Your task to perform on an android device: clear history in the chrome app Image 0: 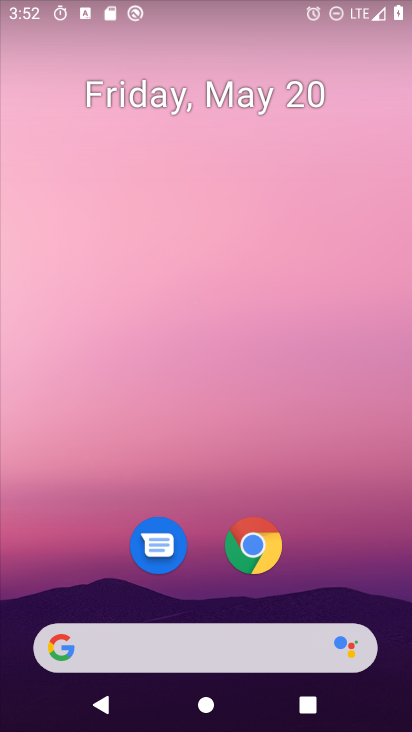
Step 0: drag from (291, 592) to (315, 11)
Your task to perform on an android device: clear history in the chrome app Image 1: 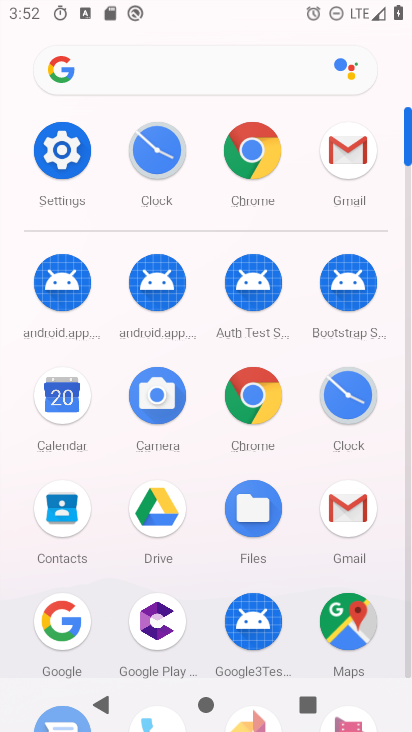
Step 1: click (236, 382)
Your task to perform on an android device: clear history in the chrome app Image 2: 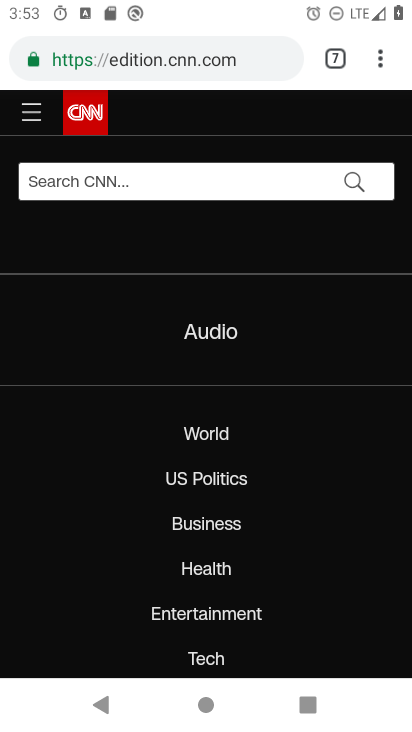
Step 2: drag from (383, 53) to (182, 332)
Your task to perform on an android device: clear history in the chrome app Image 3: 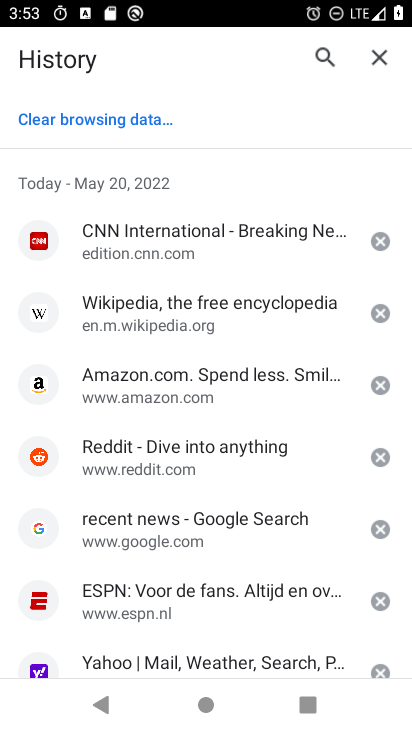
Step 3: click (125, 117)
Your task to perform on an android device: clear history in the chrome app Image 4: 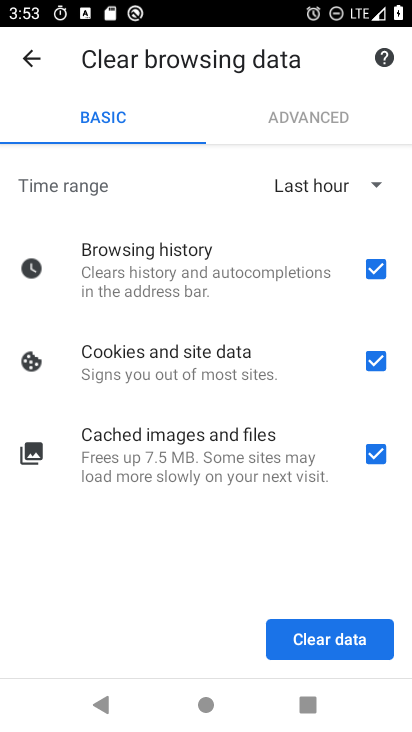
Step 4: click (372, 648)
Your task to perform on an android device: clear history in the chrome app Image 5: 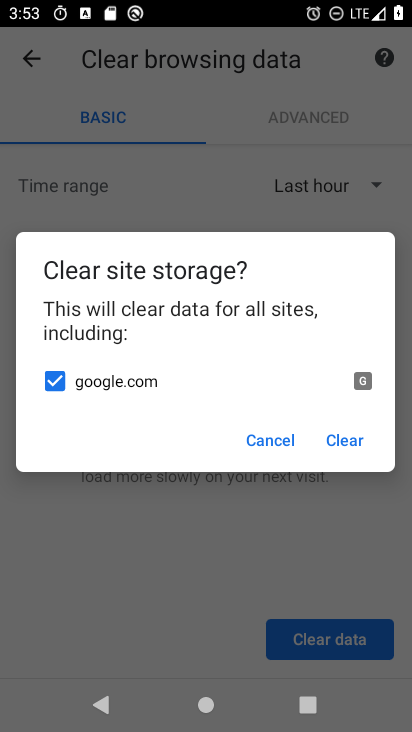
Step 5: click (335, 439)
Your task to perform on an android device: clear history in the chrome app Image 6: 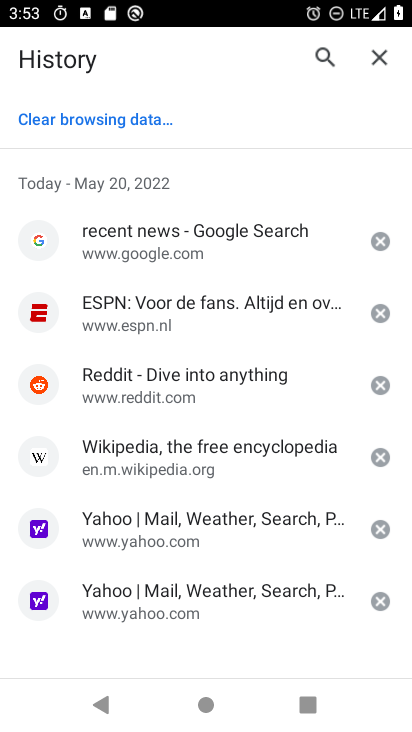
Step 6: click (376, 236)
Your task to perform on an android device: clear history in the chrome app Image 7: 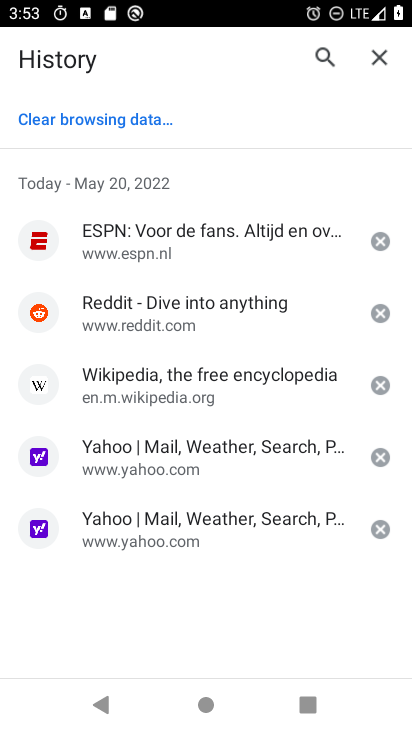
Step 7: click (377, 241)
Your task to perform on an android device: clear history in the chrome app Image 8: 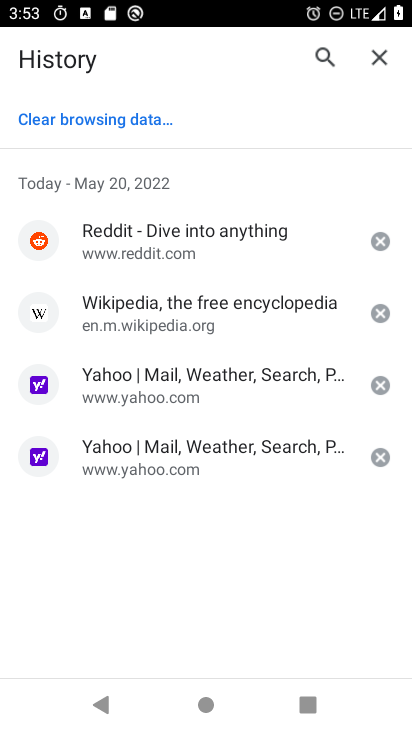
Step 8: click (383, 239)
Your task to perform on an android device: clear history in the chrome app Image 9: 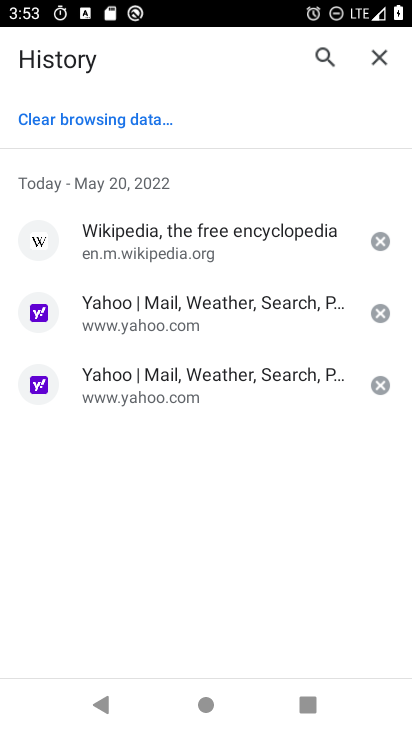
Step 9: click (377, 238)
Your task to perform on an android device: clear history in the chrome app Image 10: 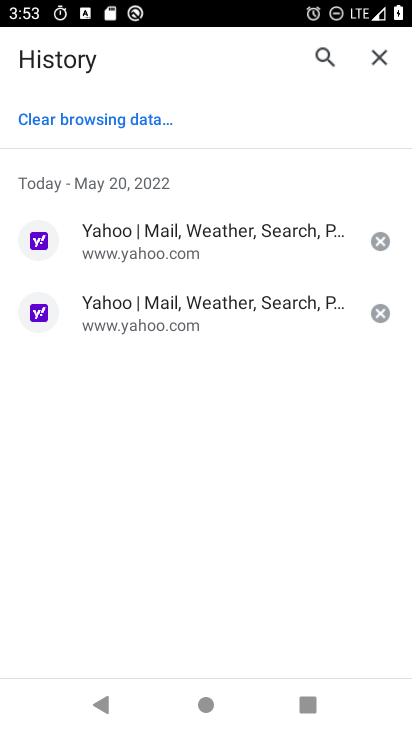
Step 10: click (372, 243)
Your task to perform on an android device: clear history in the chrome app Image 11: 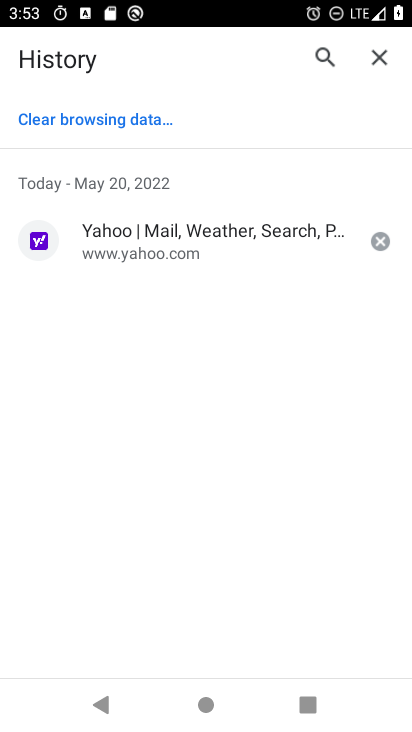
Step 11: click (385, 241)
Your task to perform on an android device: clear history in the chrome app Image 12: 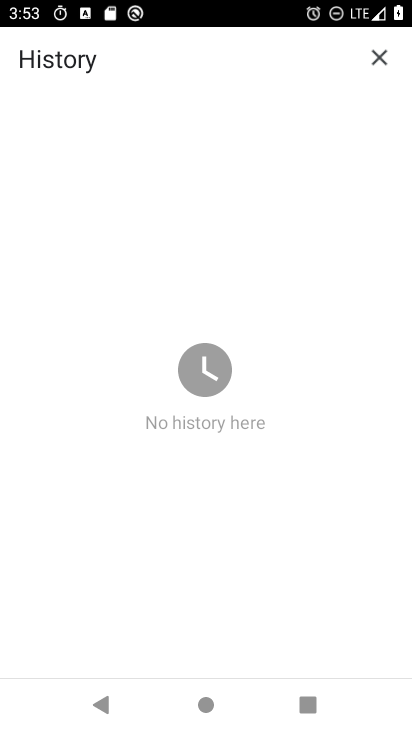
Step 12: task complete